Your task to perform on an android device: Open the stopwatch Image 0: 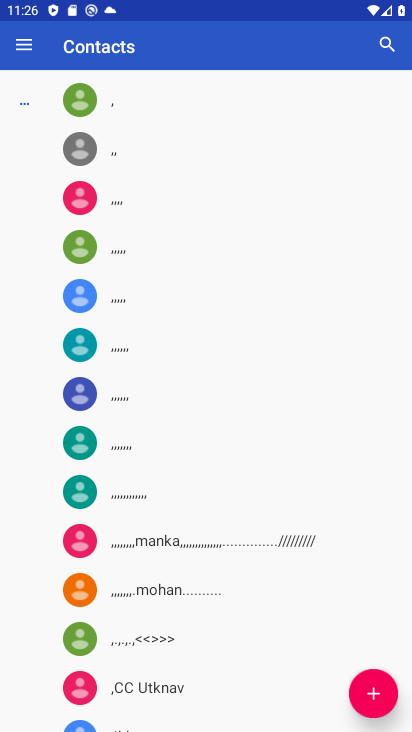
Step 0: press home button
Your task to perform on an android device: Open the stopwatch Image 1: 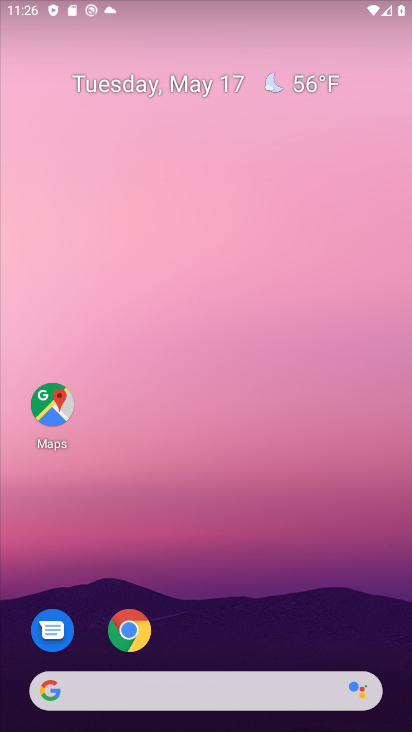
Step 1: drag from (359, 620) to (327, 200)
Your task to perform on an android device: Open the stopwatch Image 2: 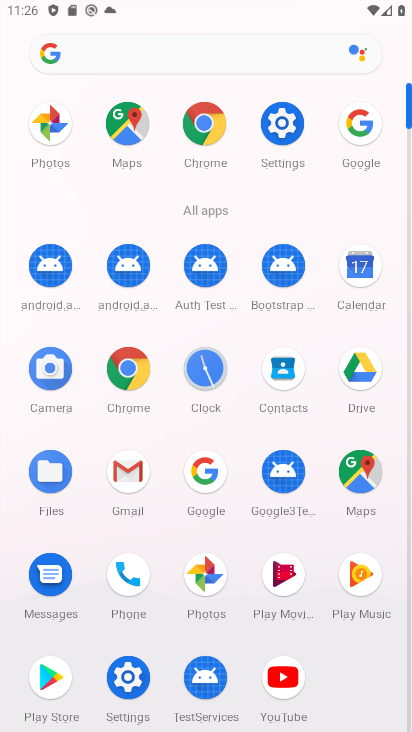
Step 2: click (209, 384)
Your task to perform on an android device: Open the stopwatch Image 3: 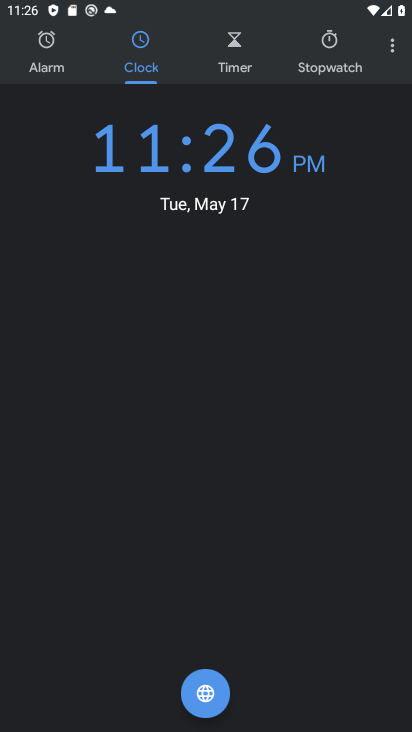
Step 3: click (321, 44)
Your task to perform on an android device: Open the stopwatch Image 4: 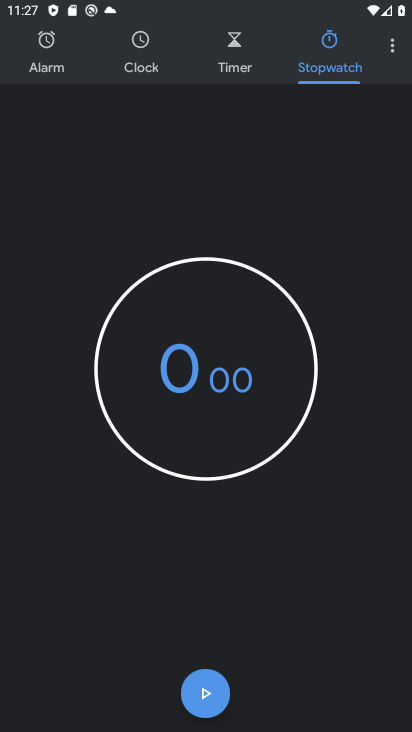
Step 4: task complete